Your task to perform on an android device: move a message to another label in the gmail app Image 0: 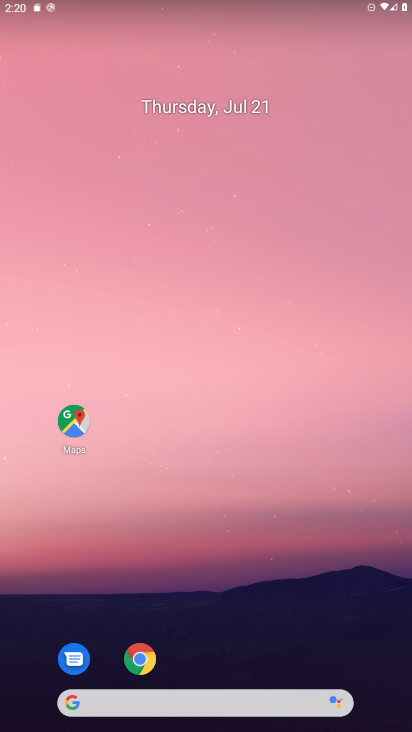
Step 0: press home button
Your task to perform on an android device: move a message to another label in the gmail app Image 1: 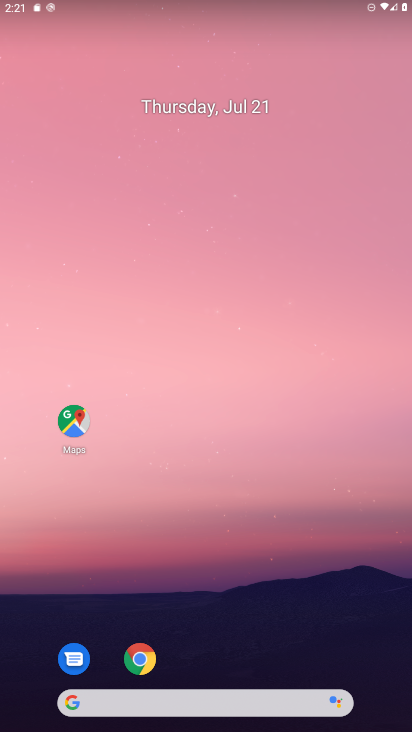
Step 1: drag from (67, 581) to (230, 181)
Your task to perform on an android device: move a message to another label in the gmail app Image 2: 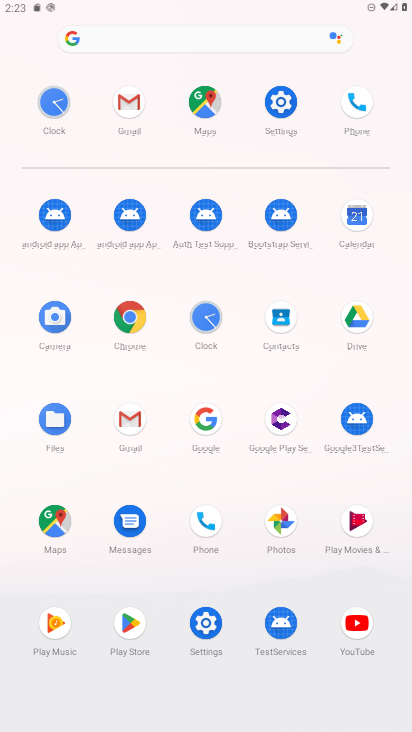
Step 2: click (136, 123)
Your task to perform on an android device: move a message to another label in the gmail app Image 3: 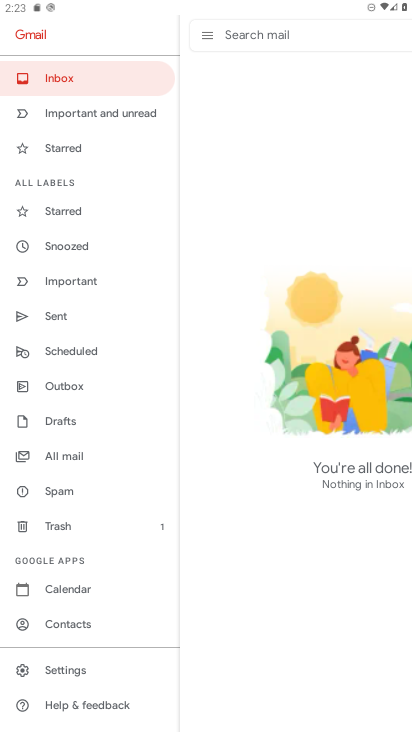
Step 3: task complete